Your task to perform on an android device: open a bookmark in the chrome app Image 0: 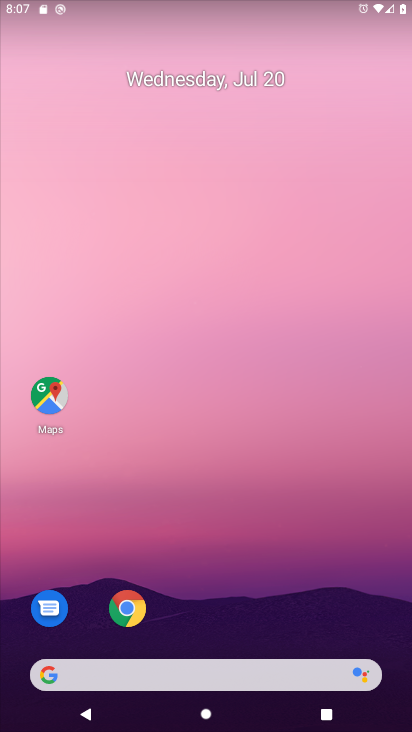
Step 0: drag from (268, 573) to (260, 178)
Your task to perform on an android device: open a bookmark in the chrome app Image 1: 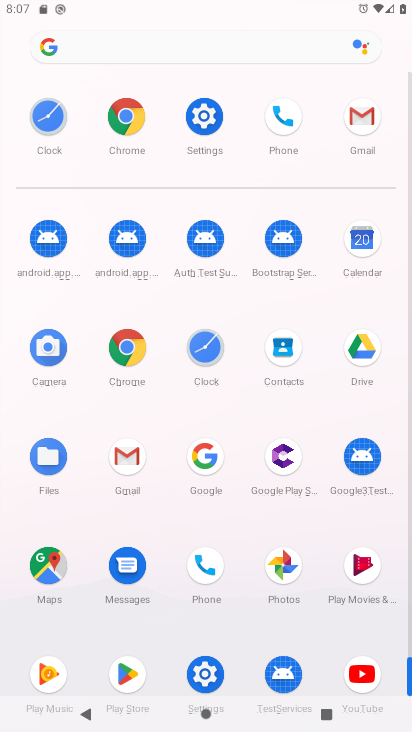
Step 1: click (135, 337)
Your task to perform on an android device: open a bookmark in the chrome app Image 2: 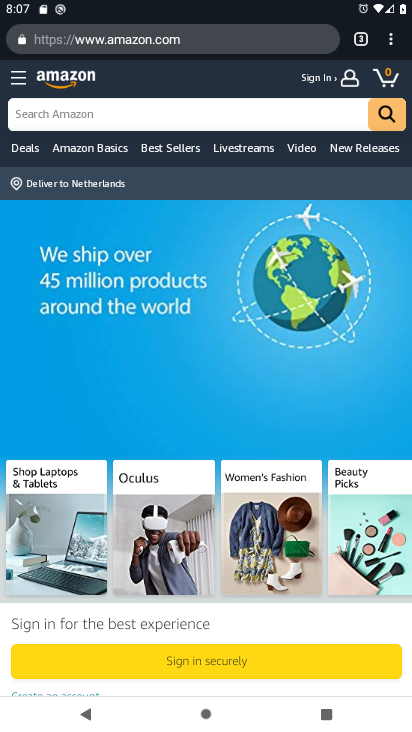
Step 2: click (400, 45)
Your task to perform on an android device: open a bookmark in the chrome app Image 3: 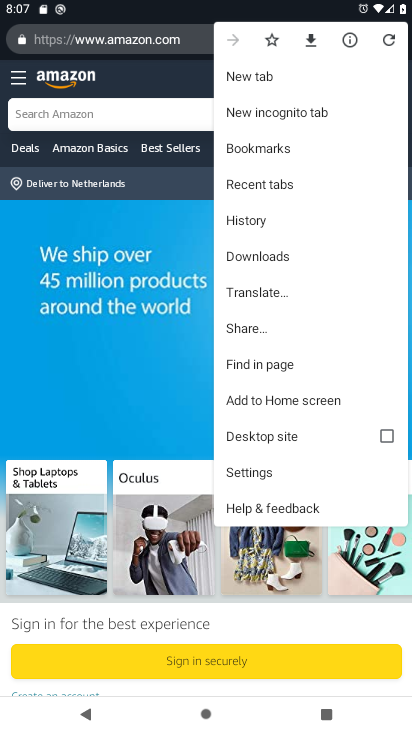
Step 3: click (244, 149)
Your task to perform on an android device: open a bookmark in the chrome app Image 4: 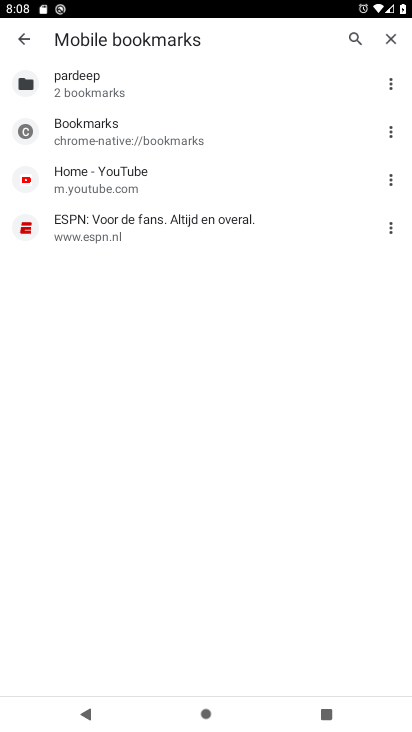
Step 4: task complete